Your task to perform on an android device: turn on sleep mode Image 0: 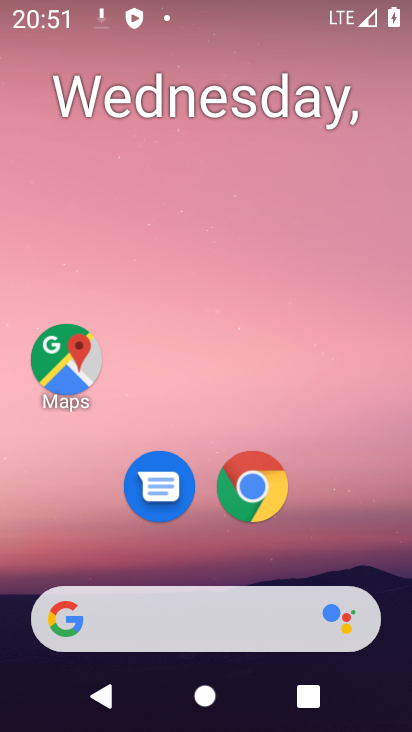
Step 0: drag from (160, 537) to (198, 0)
Your task to perform on an android device: turn on sleep mode Image 1: 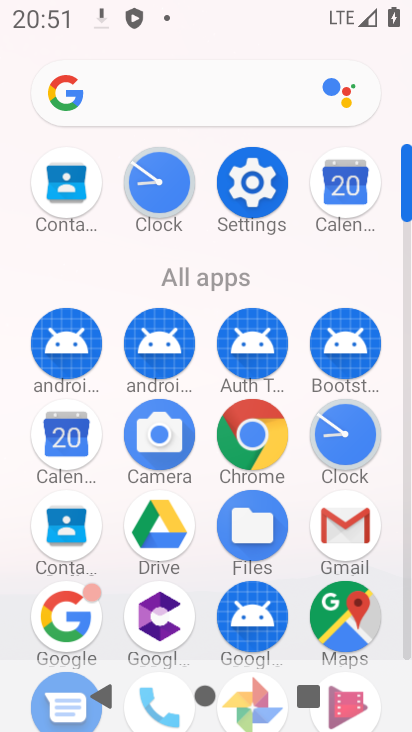
Step 1: click (276, 185)
Your task to perform on an android device: turn on sleep mode Image 2: 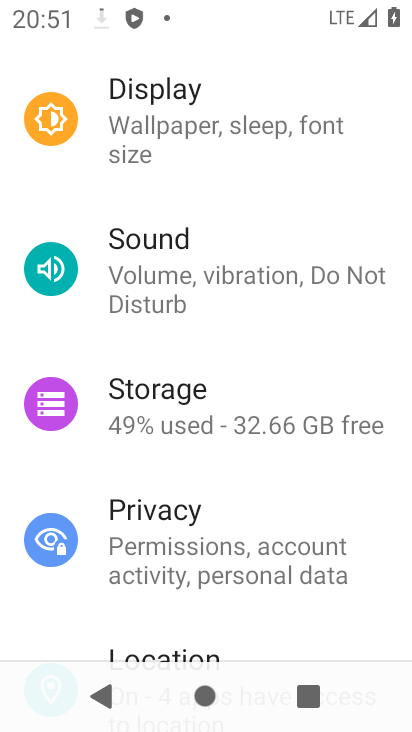
Step 2: drag from (257, 214) to (199, 674)
Your task to perform on an android device: turn on sleep mode Image 3: 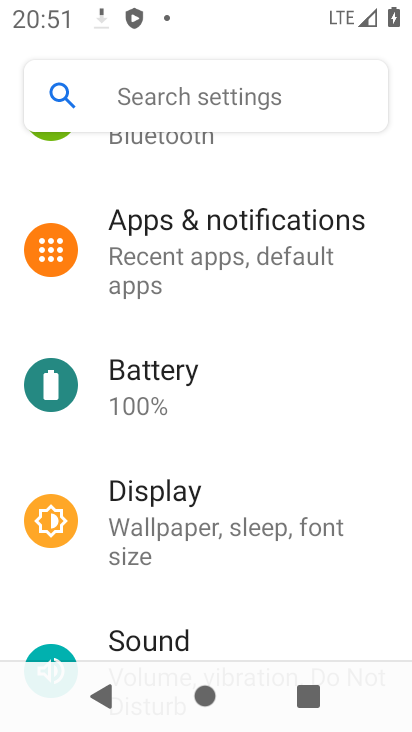
Step 3: click (174, 97)
Your task to perform on an android device: turn on sleep mode Image 4: 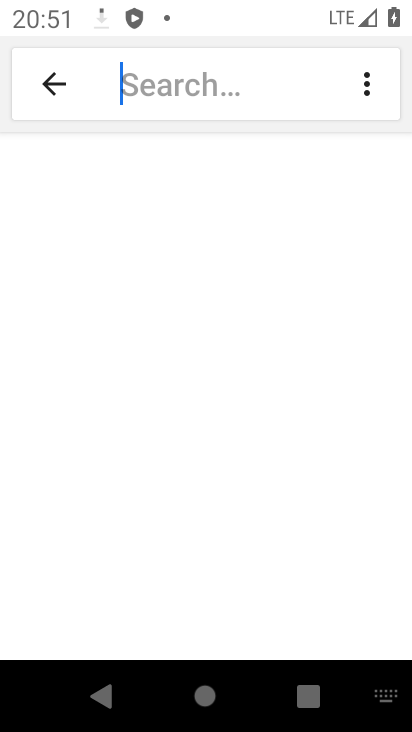
Step 4: type "sleep mode"
Your task to perform on an android device: turn on sleep mode Image 5: 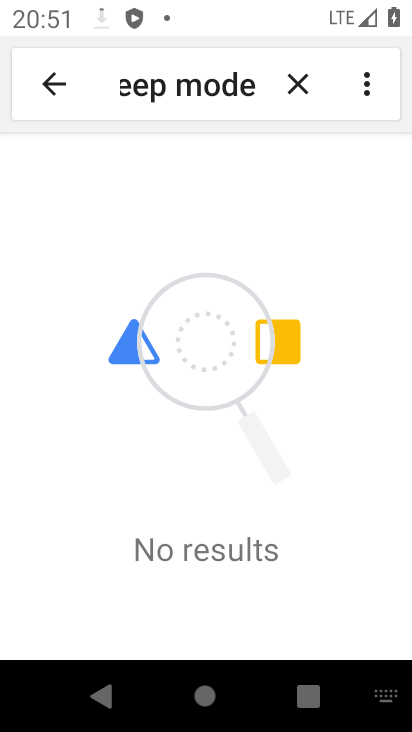
Step 5: task complete